Your task to perform on an android device: turn on wifi Image 0: 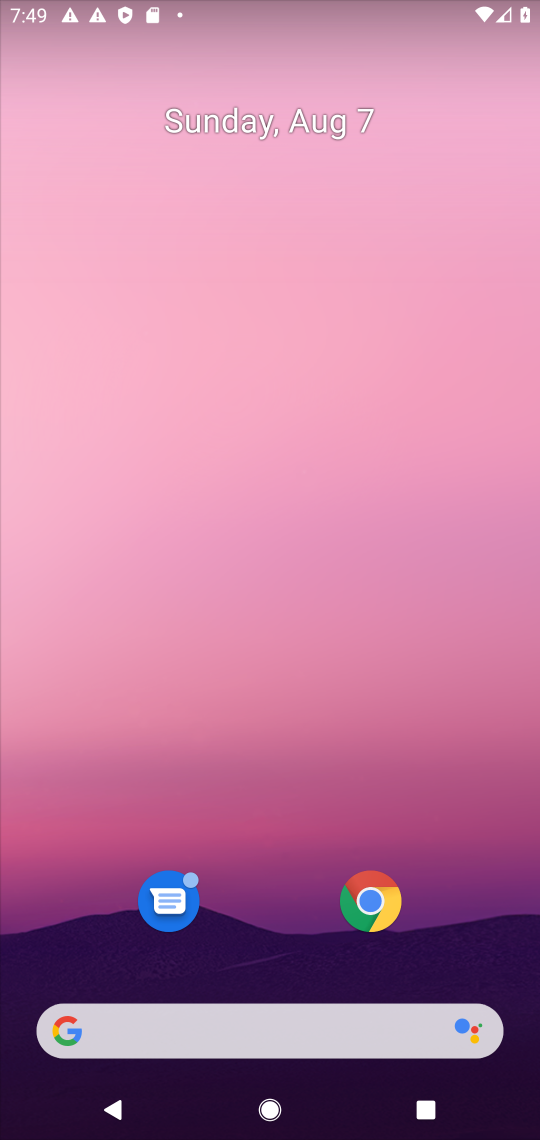
Step 0: drag from (250, 13) to (148, 715)
Your task to perform on an android device: turn on wifi Image 1: 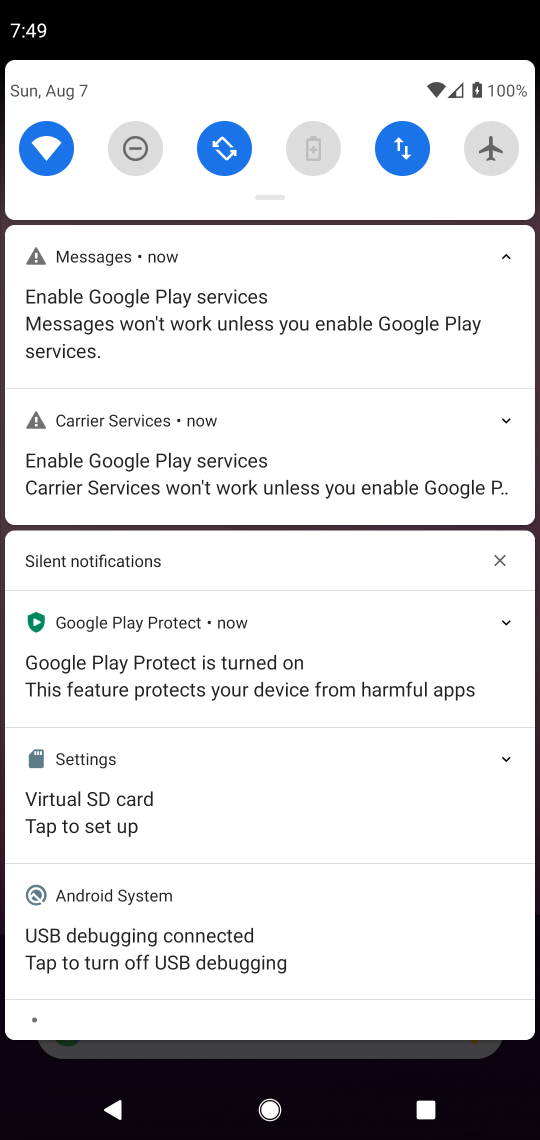
Step 1: click (261, 1050)
Your task to perform on an android device: turn on wifi Image 2: 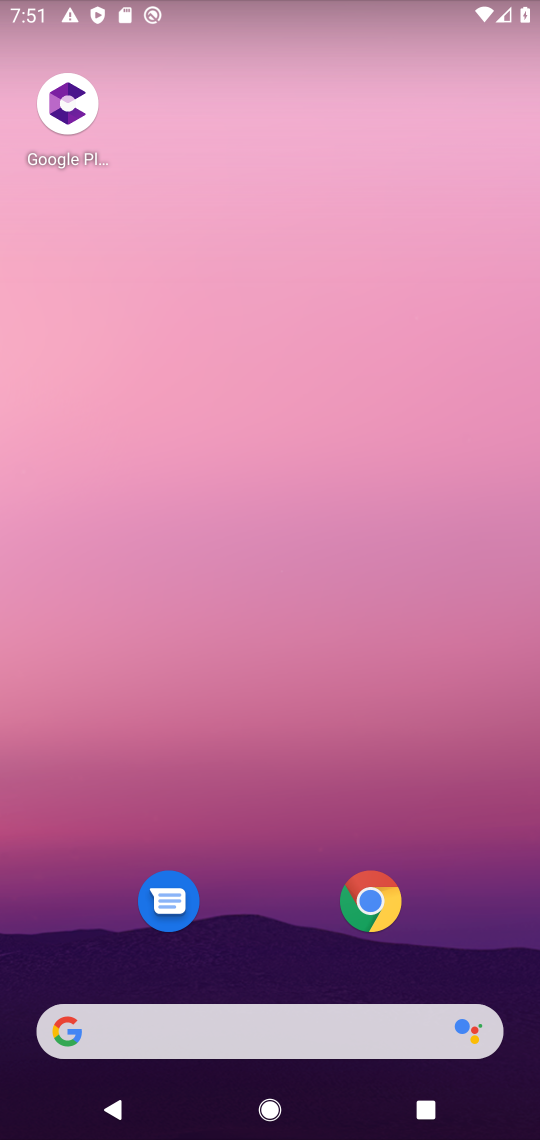
Step 2: task complete